Your task to perform on an android device: Add bose soundlink mini to the cart on costco Image 0: 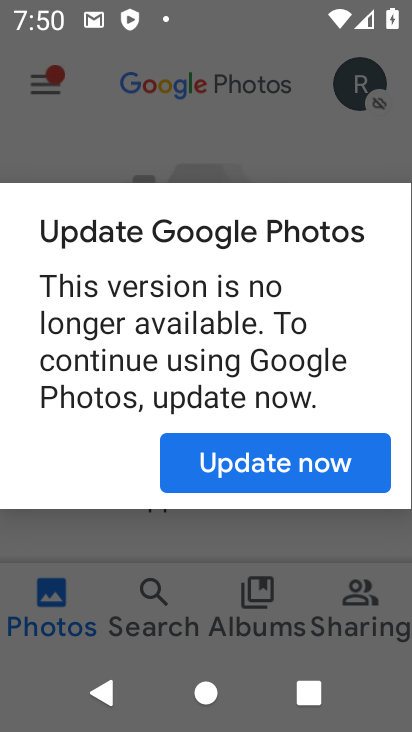
Step 0: press home button
Your task to perform on an android device: Add bose soundlink mini to the cart on costco Image 1: 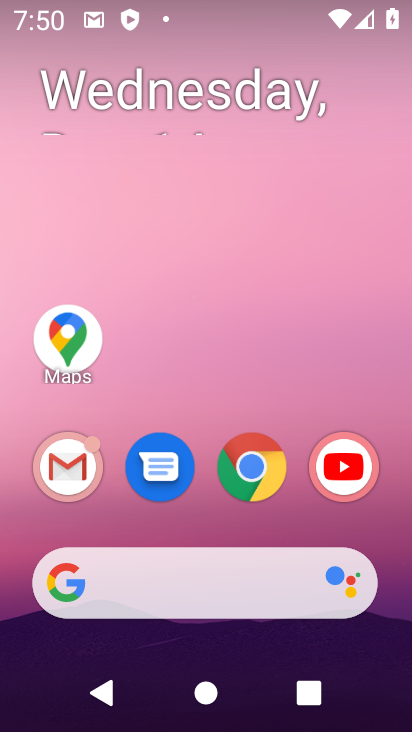
Step 1: click (203, 595)
Your task to perform on an android device: Add bose soundlink mini to the cart on costco Image 2: 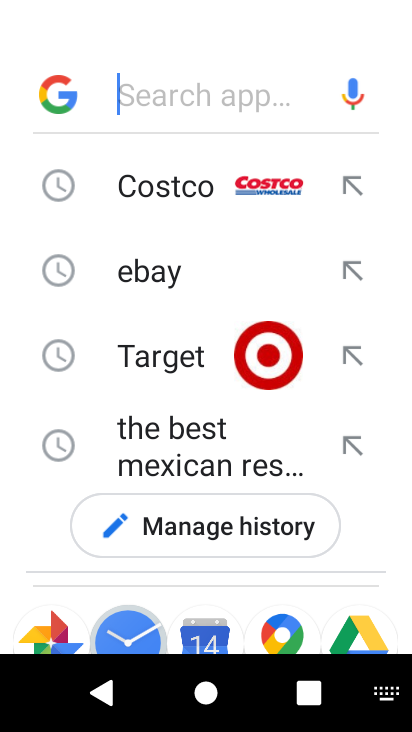
Step 2: type "costco"
Your task to perform on an android device: Add bose soundlink mini to the cart on costco Image 3: 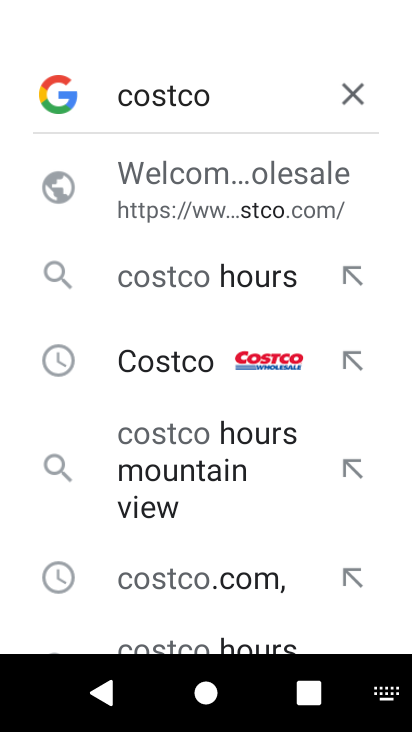
Step 3: click (145, 192)
Your task to perform on an android device: Add bose soundlink mini to the cart on costco Image 4: 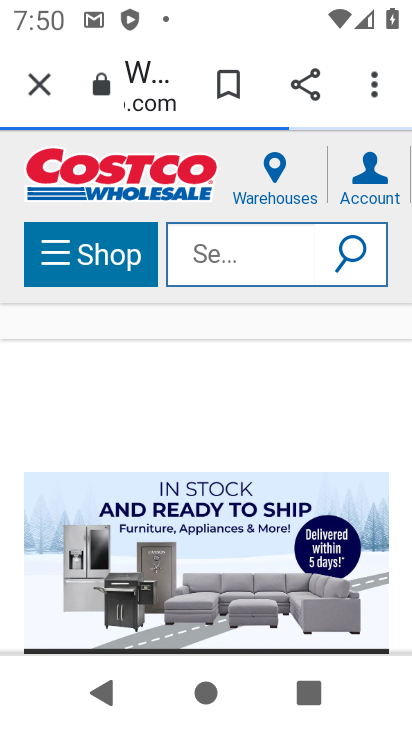
Step 4: click (269, 254)
Your task to perform on an android device: Add bose soundlink mini to the cart on costco Image 5: 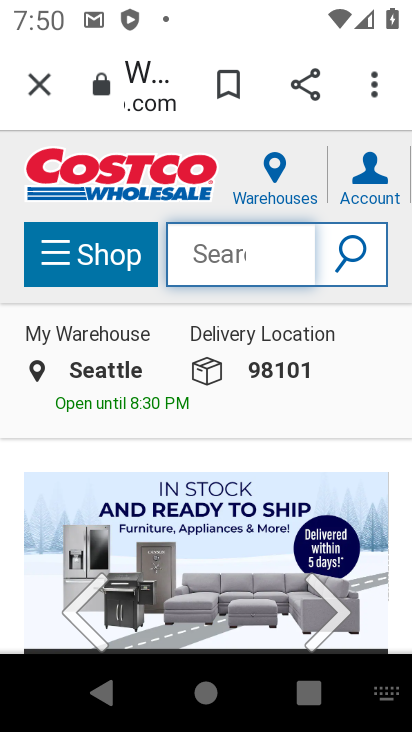
Step 5: task complete